Your task to perform on an android device: Go to location settings Image 0: 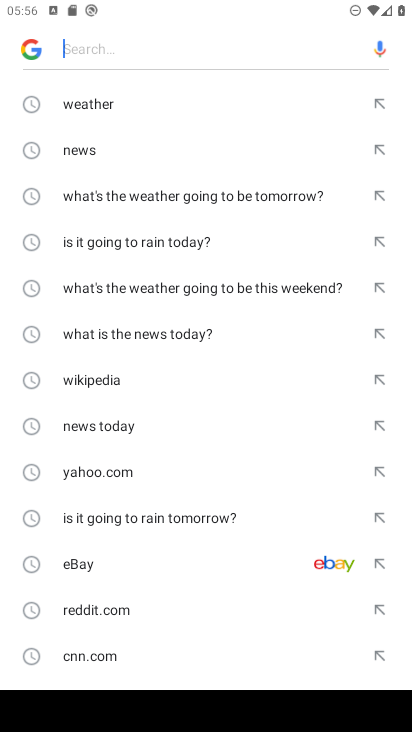
Step 0: press home button
Your task to perform on an android device: Go to location settings Image 1: 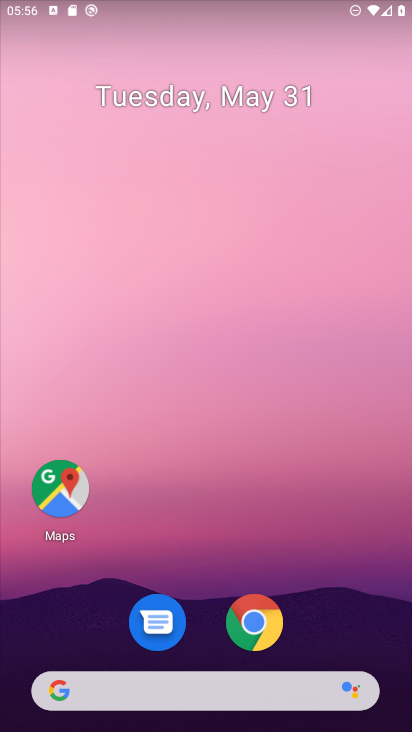
Step 1: drag from (323, 672) to (178, 12)
Your task to perform on an android device: Go to location settings Image 2: 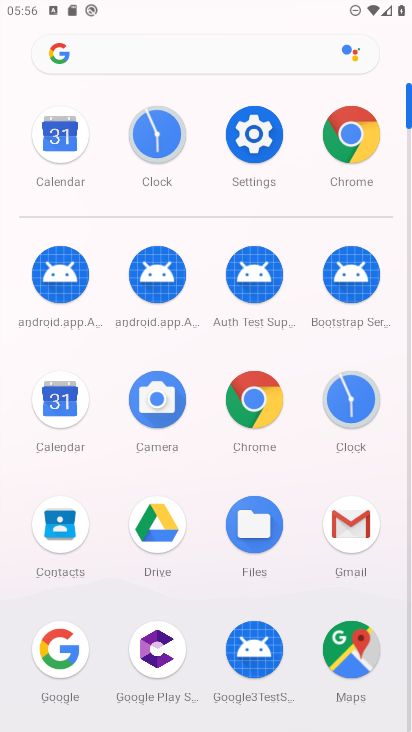
Step 2: click (272, 157)
Your task to perform on an android device: Go to location settings Image 3: 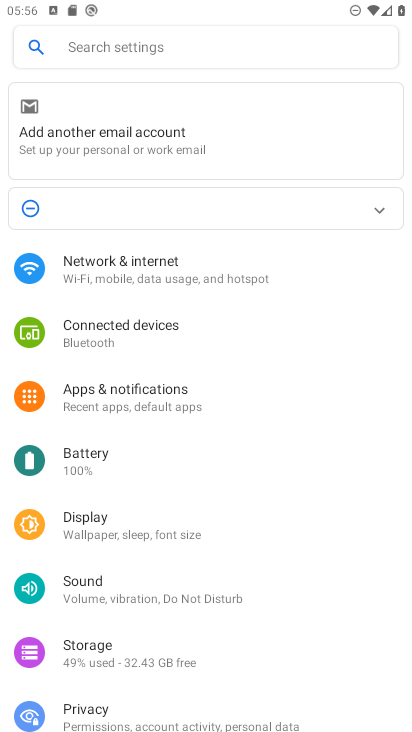
Step 3: drag from (172, 694) to (248, 115)
Your task to perform on an android device: Go to location settings Image 4: 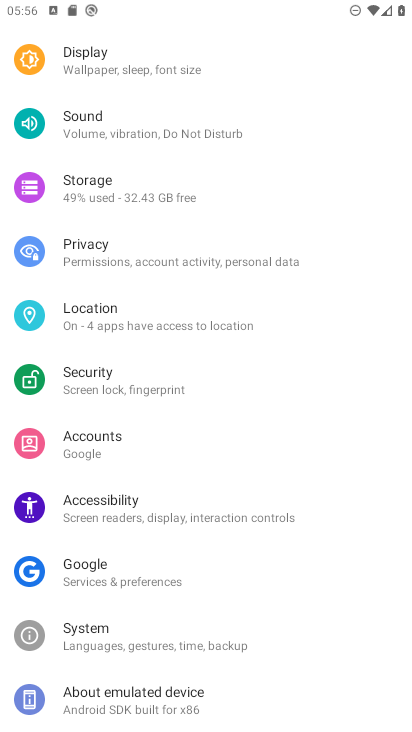
Step 4: click (113, 317)
Your task to perform on an android device: Go to location settings Image 5: 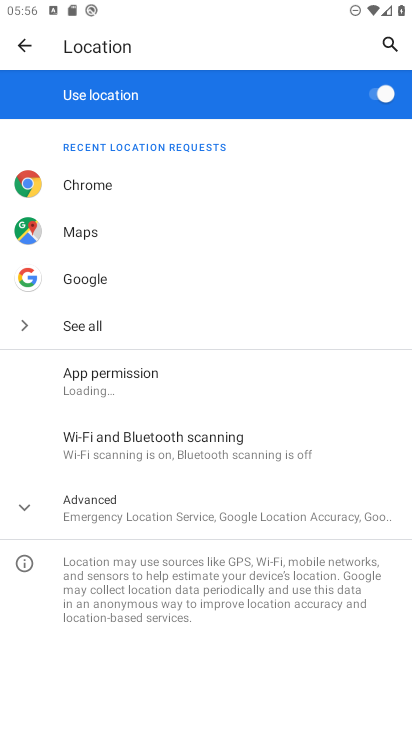
Step 5: task complete